Your task to perform on an android device: turn on data saver in the chrome app Image 0: 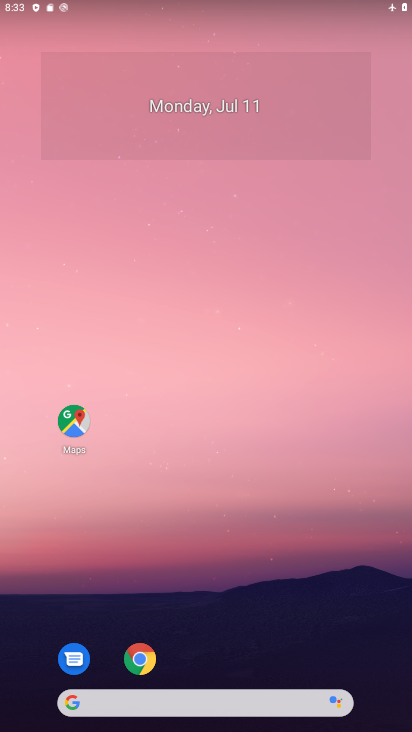
Step 0: click (142, 660)
Your task to perform on an android device: turn on data saver in the chrome app Image 1: 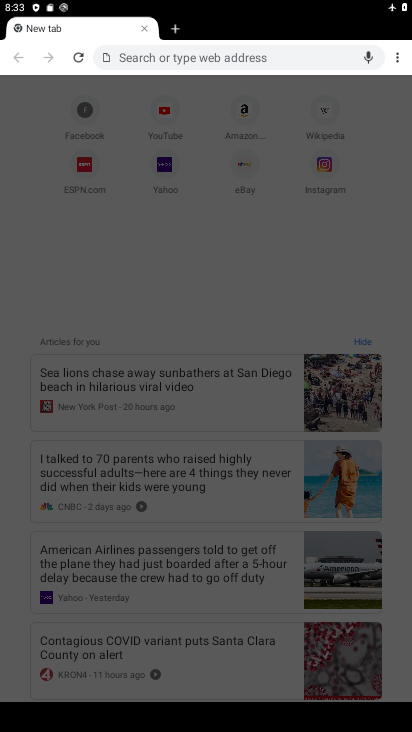
Step 1: click (392, 55)
Your task to perform on an android device: turn on data saver in the chrome app Image 2: 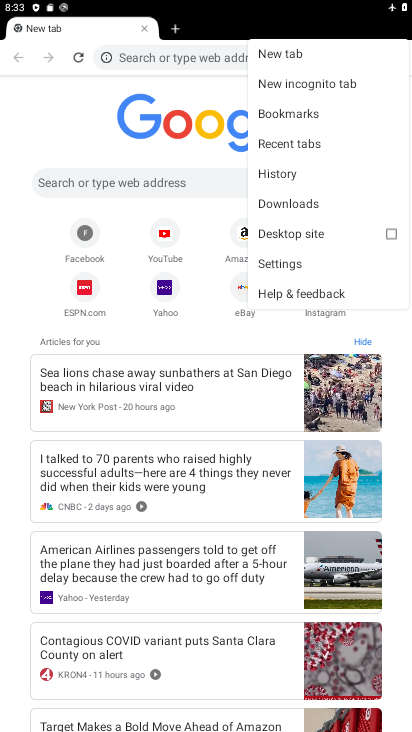
Step 2: click (278, 263)
Your task to perform on an android device: turn on data saver in the chrome app Image 3: 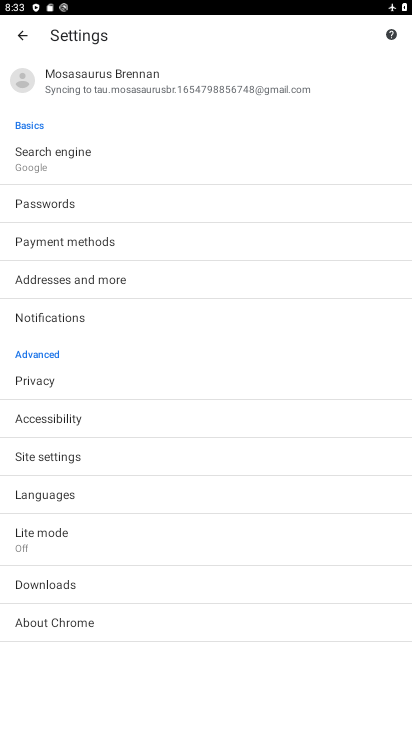
Step 3: click (69, 541)
Your task to perform on an android device: turn on data saver in the chrome app Image 4: 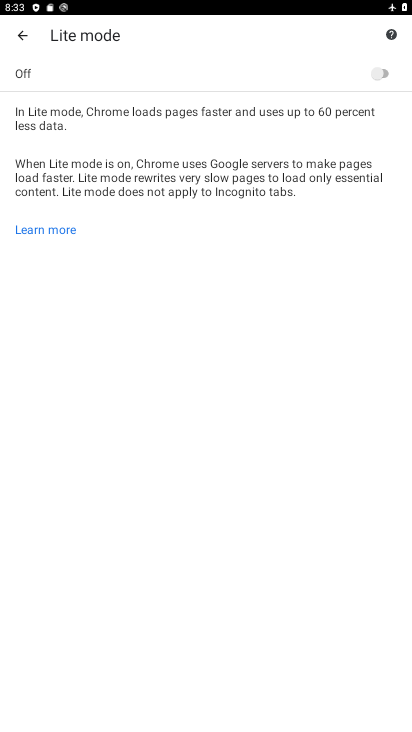
Step 4: click (384, 72)
Your task to perform on an android device: turn on data saver in the chrome app Image 5: 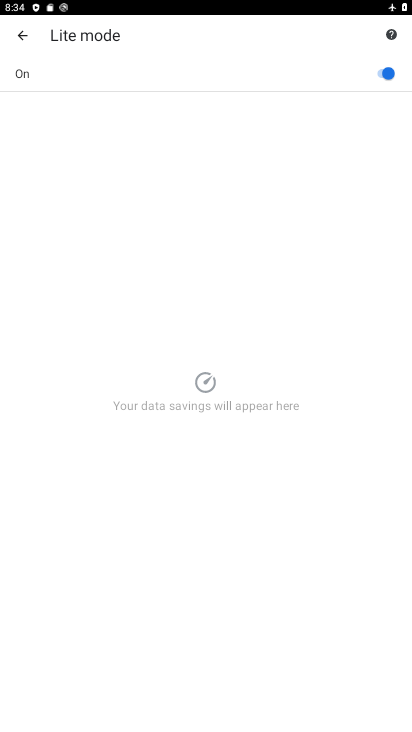
Step 5: task complete